Your task to perform on an android device: Open the map Image 0: 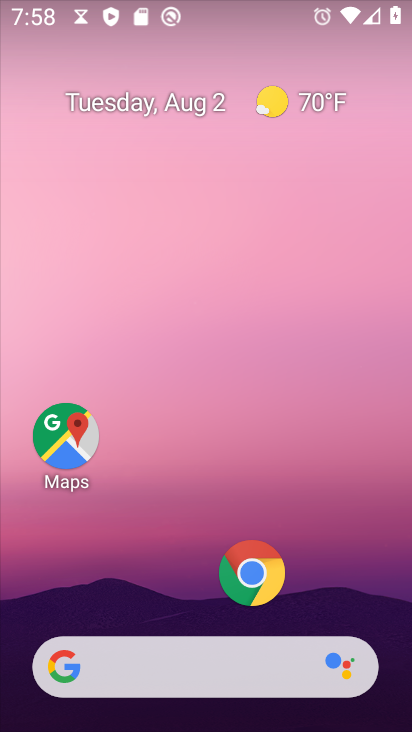
Step 0: press home button
Your task to perform on an android device: Open the map Image 1: 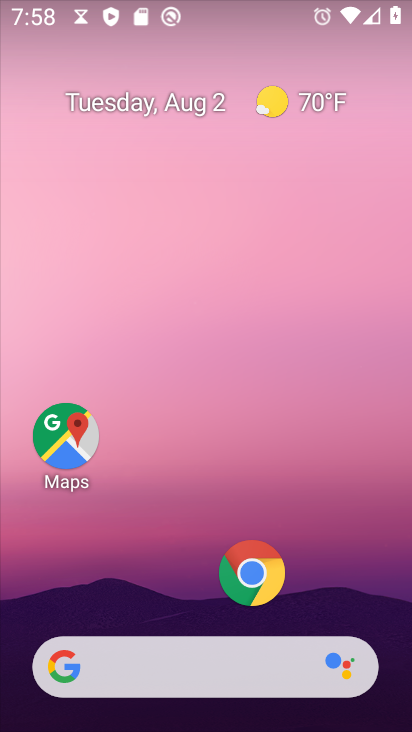
Step 1: click (68, 436)
Your task to perform on an android device: Open the map Image 2: 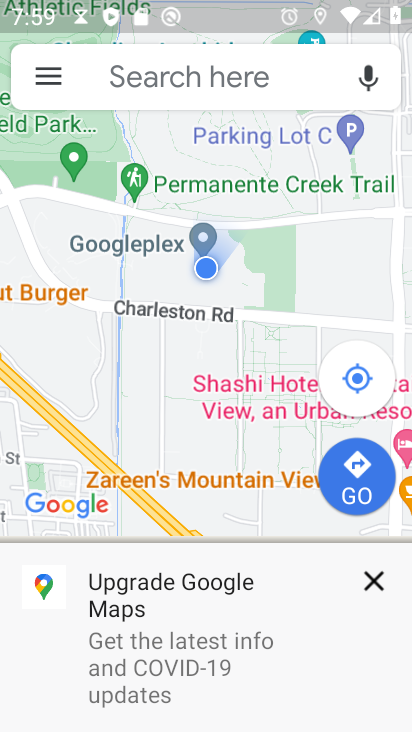
Step 2: task complete